Your task to perform on an android device: Go to location settings Image 0: 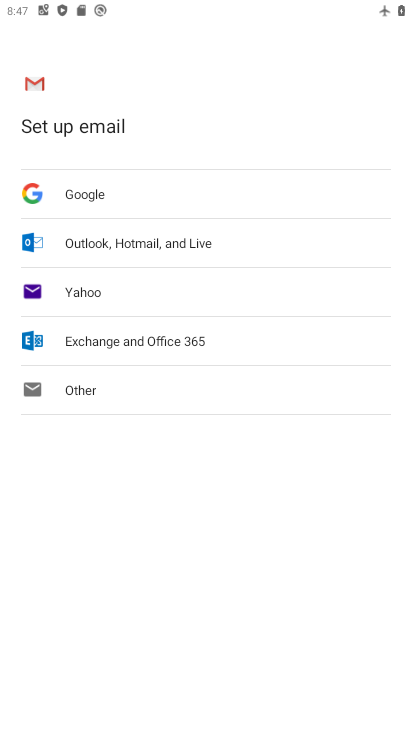
Step 0: press home button
Your task to perform on an android device: Go to location settings Image 1: 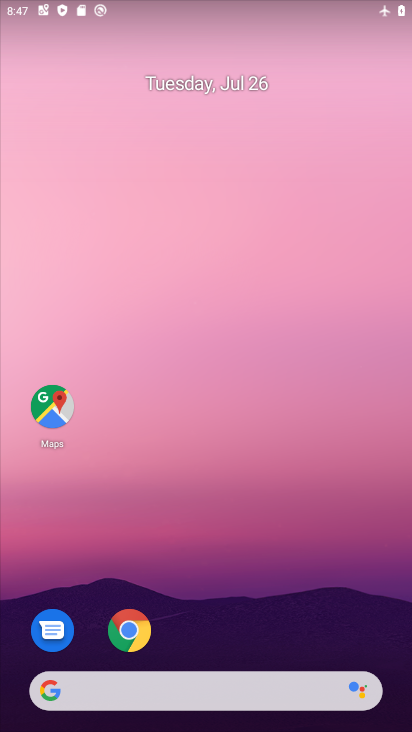
Step 1: drag from (263, 633) to (271, 23)
Your task to perform on an android device: Go to location settings Image 2: 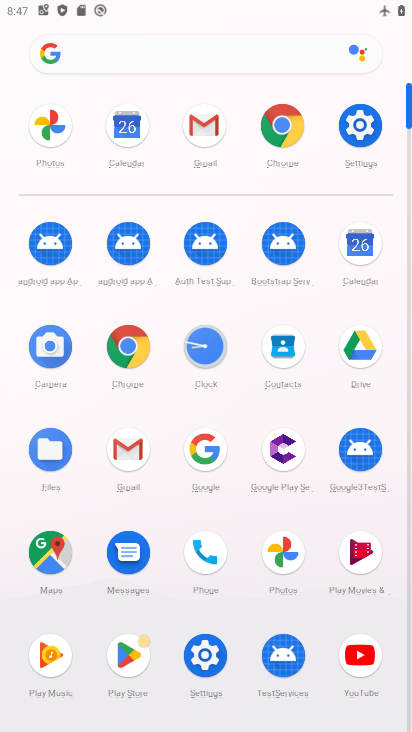
Step 2: click (218, 656)
Your task to perform on an android device: Go to location settings Image 3: 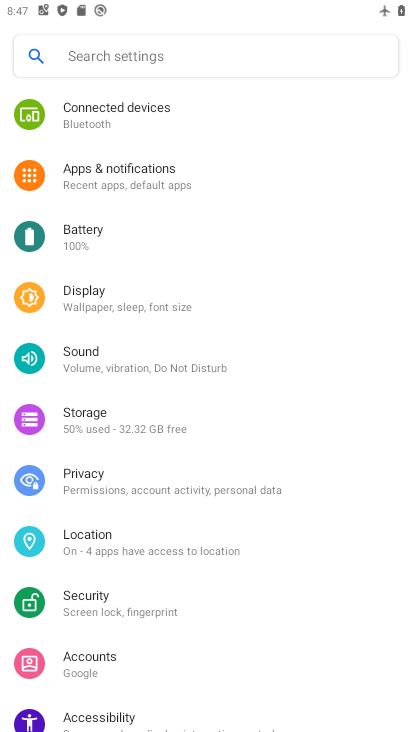
Step 3: click (130, 541)
Your task to perform on an android device: Go to location settings Image 4: 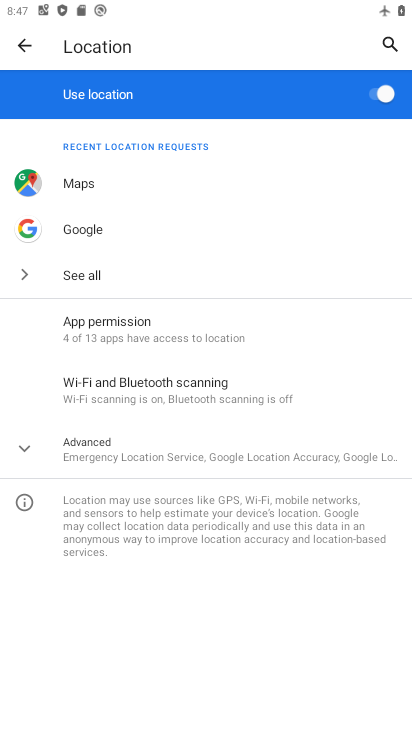
Step 4: task complete